Your task to perform on an android device: Open the map Image 0: 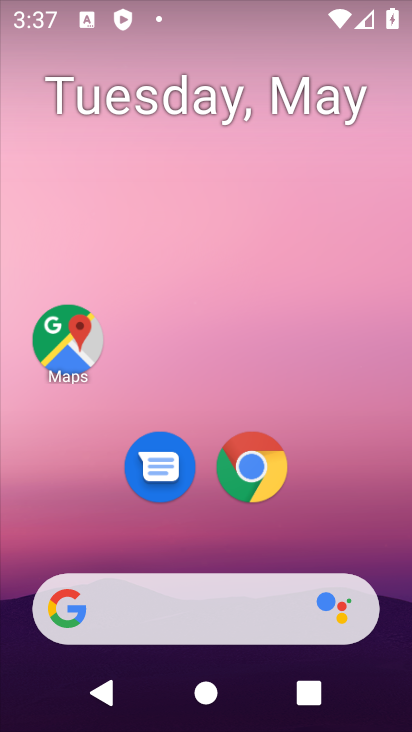
Step 0: task complete